Your task to perform on an android device: Search for a new desk on IKEA Image 0: 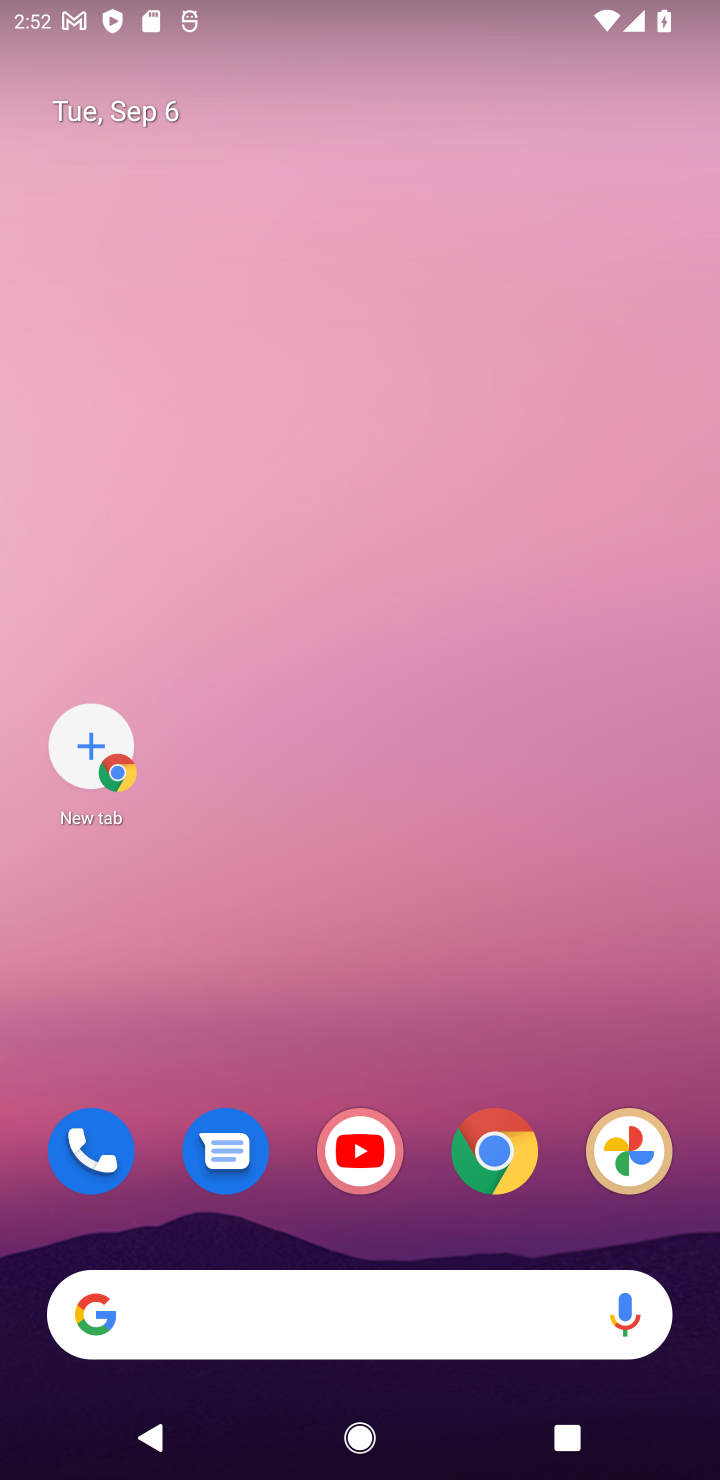
Step 0: click (498, 1173)
Your task to perform on an android device: Search for a new desk on IKEA Image 1: 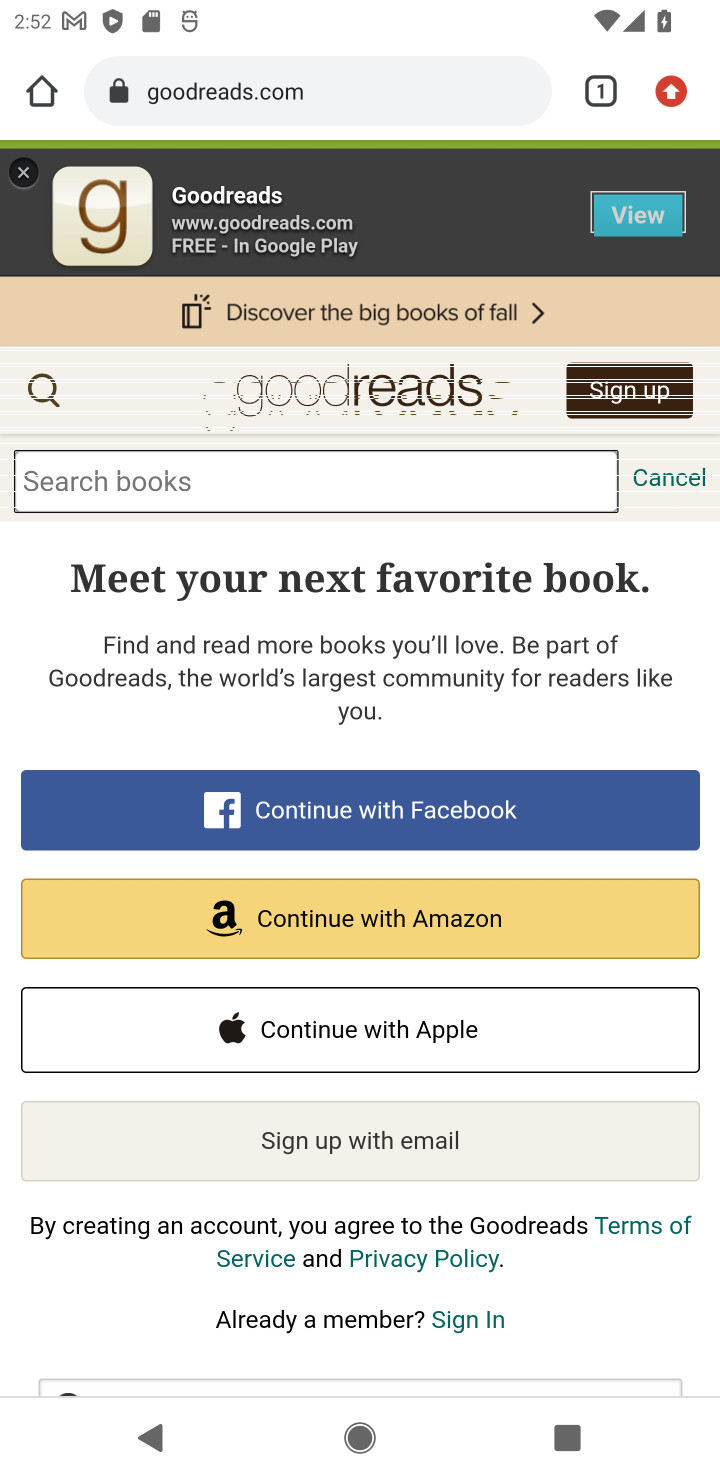
Step 1: click (244, 88)
Your task to perform on an android device: Search for a new desk on IKEA Image 2: 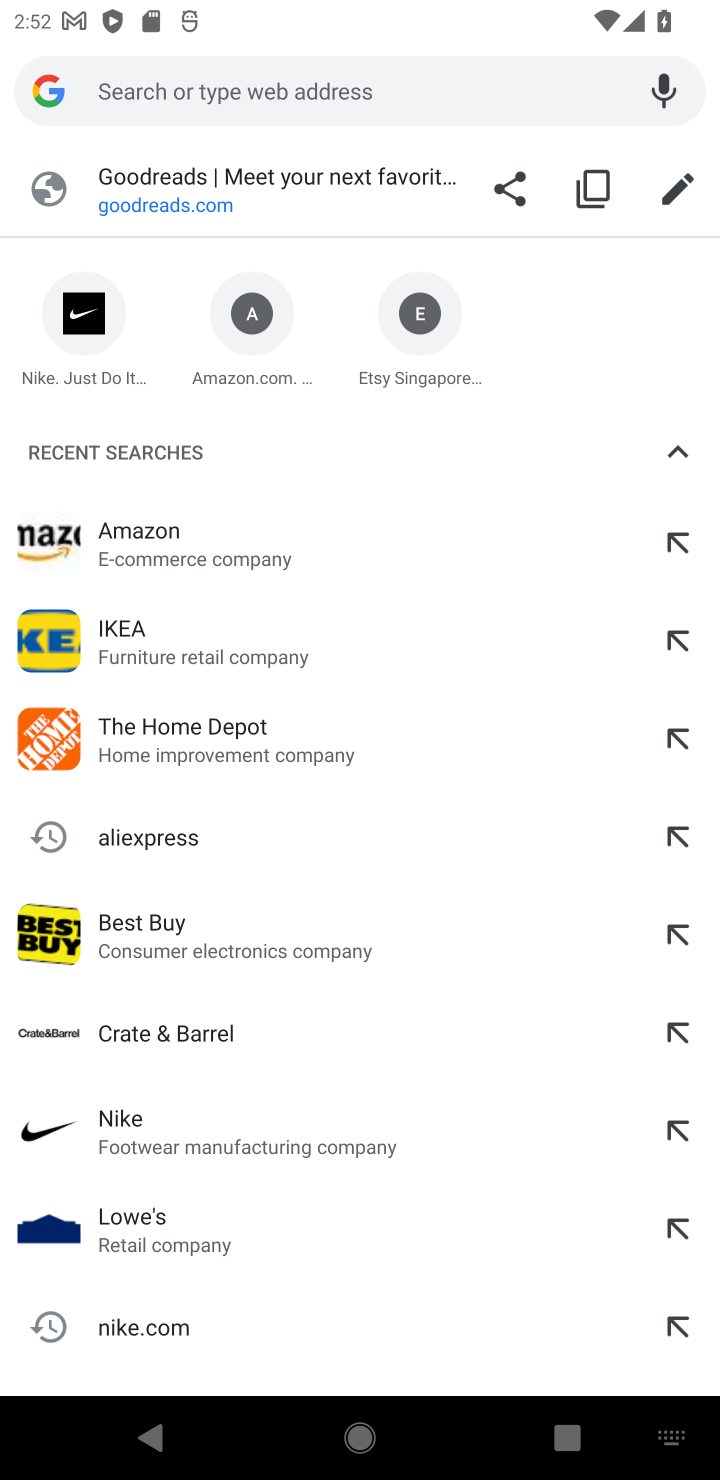
Step 2: type "ikea"
Your task to perform on an android device: Search for a new desk on IKEA Image 3: 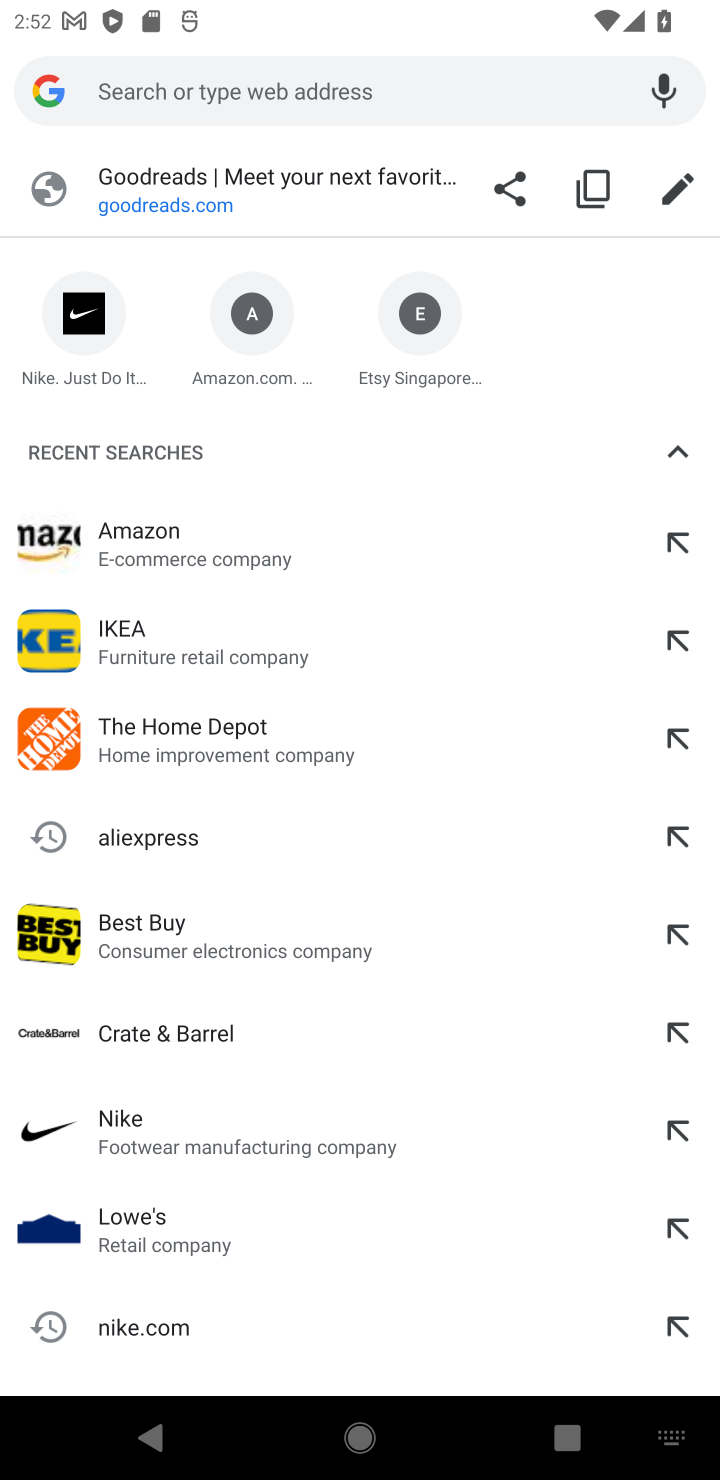
Step 3: click (124, 655)
Your task to perform on an android device: Search for a new desk on IKEA Image 4: 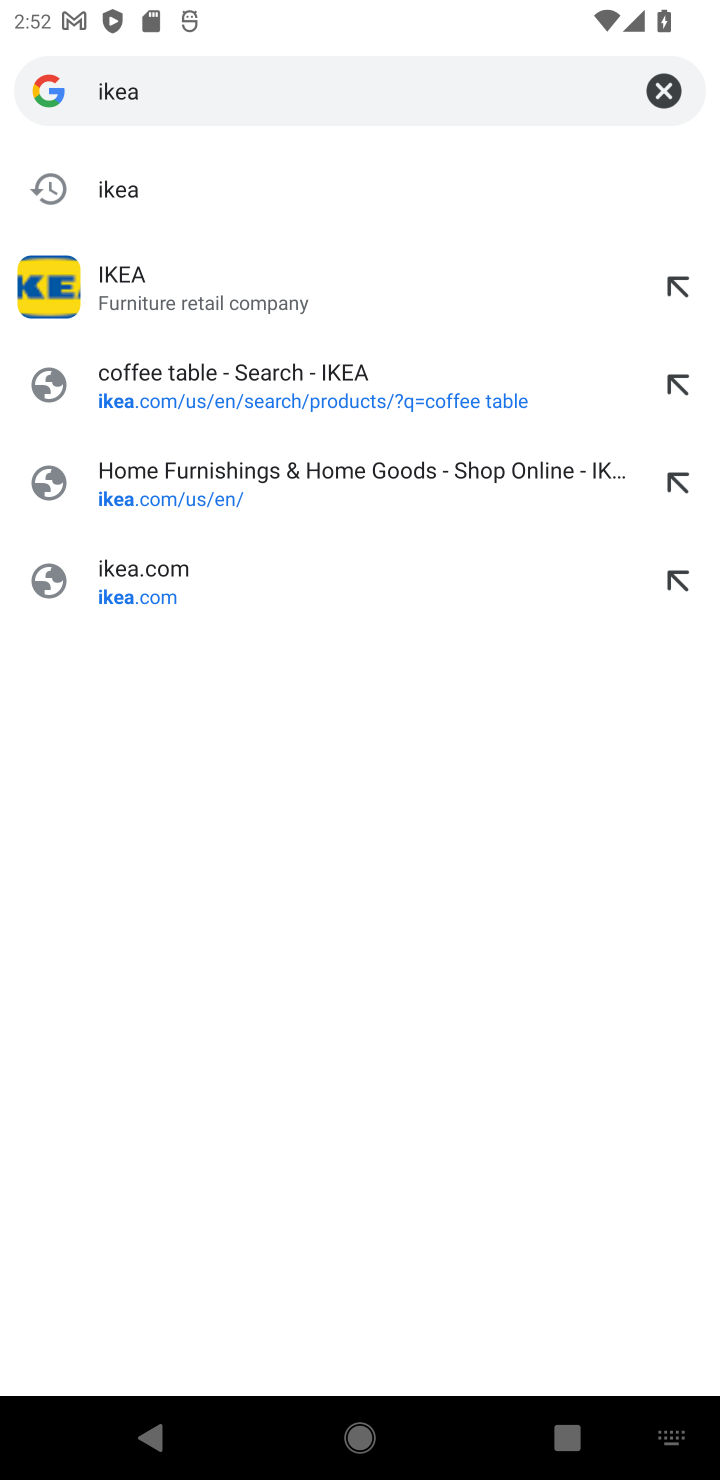
Step 4: click (134, 300)
Your task to perform on an android device: Search for a new desk on IKEA Image 5: 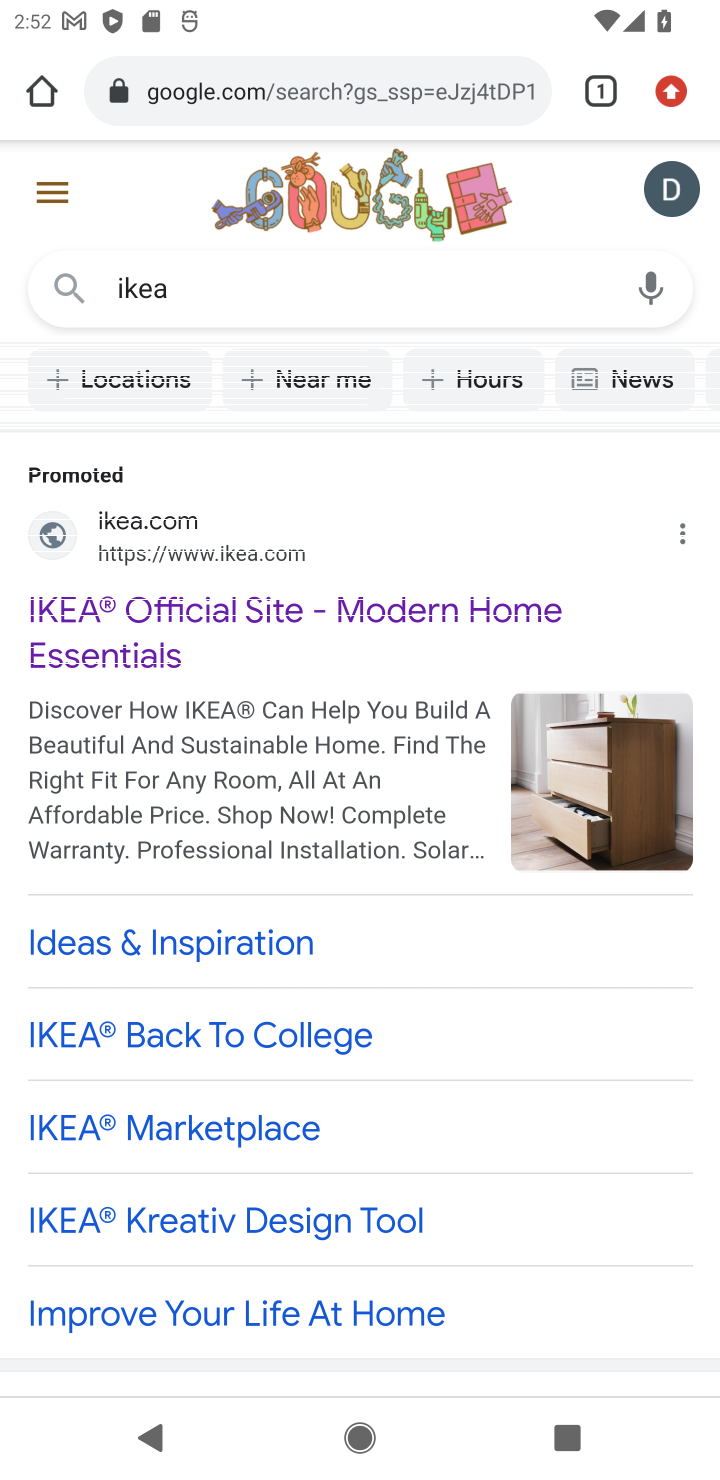
Step 5: drag from (535, 1111) to (567, 411)
Your task to perform on an android device: Search for a new desk on IKEA Image 6: 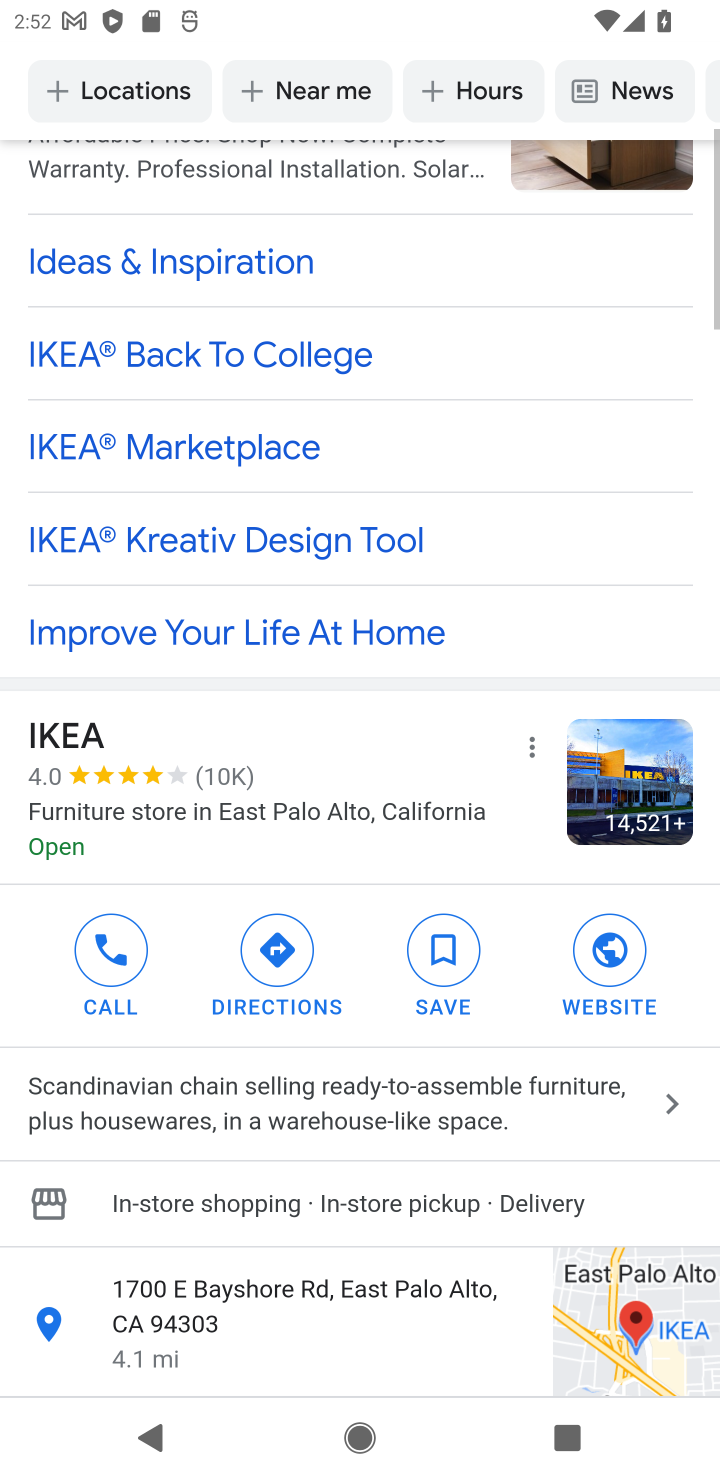
Step 6: drag from (417, 1065) to (520, 457)
Your task to perform on an android device: Search for a new desk on IKEA Image 7: 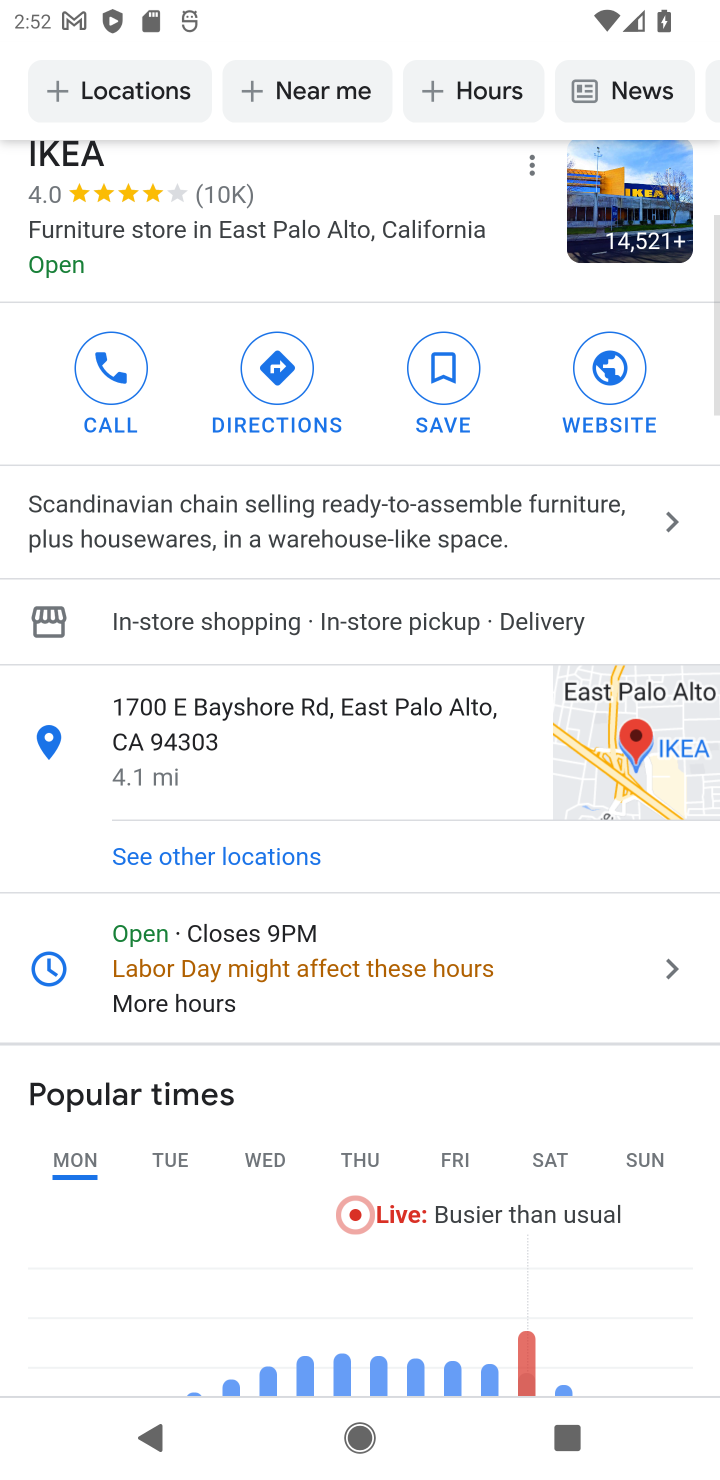
Step 7: drag from (343, 1230) to (555, 615)
Your task to perform on an android device: Search for a new desk on IKEA Image 8: 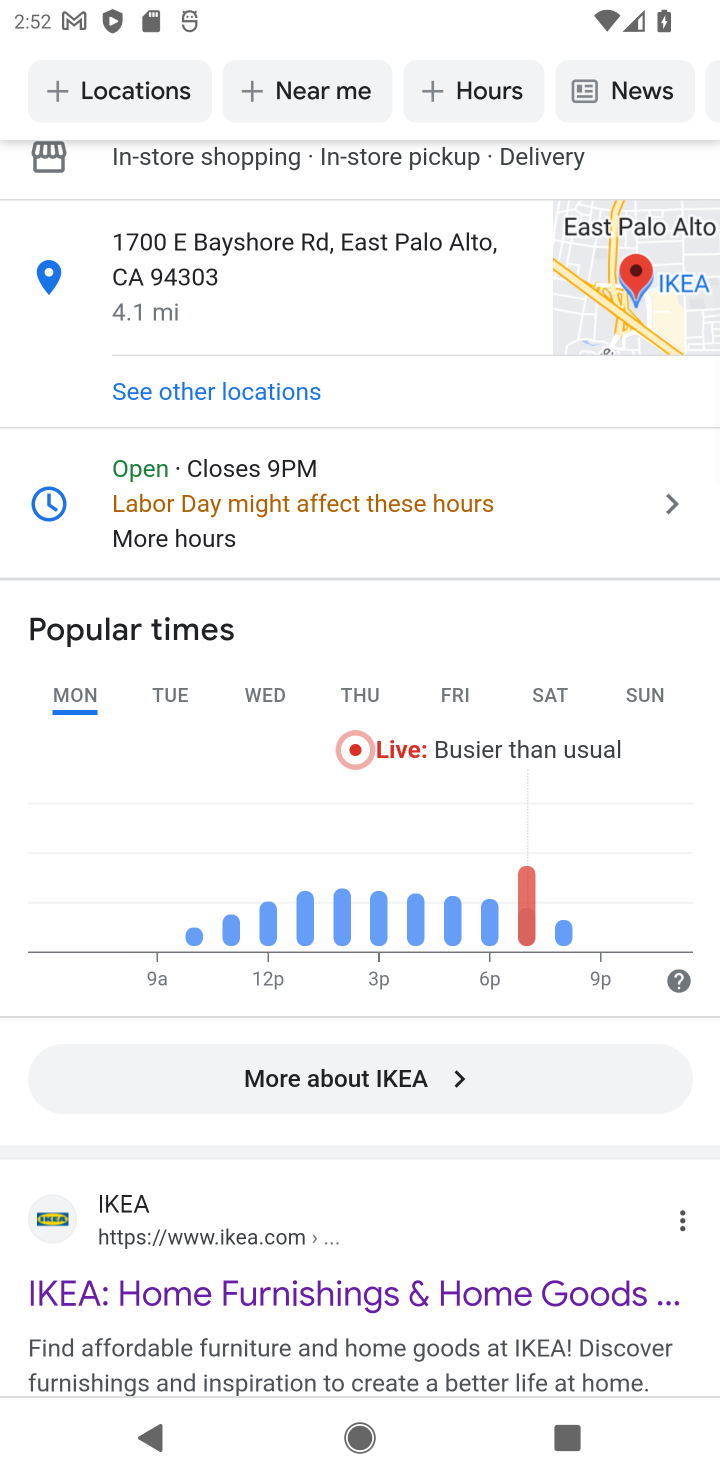
Step 8: drag from (453, 1164) to (514, 614)
Your task to perform on an android device: Search for a new desk on IKEA Image 9: 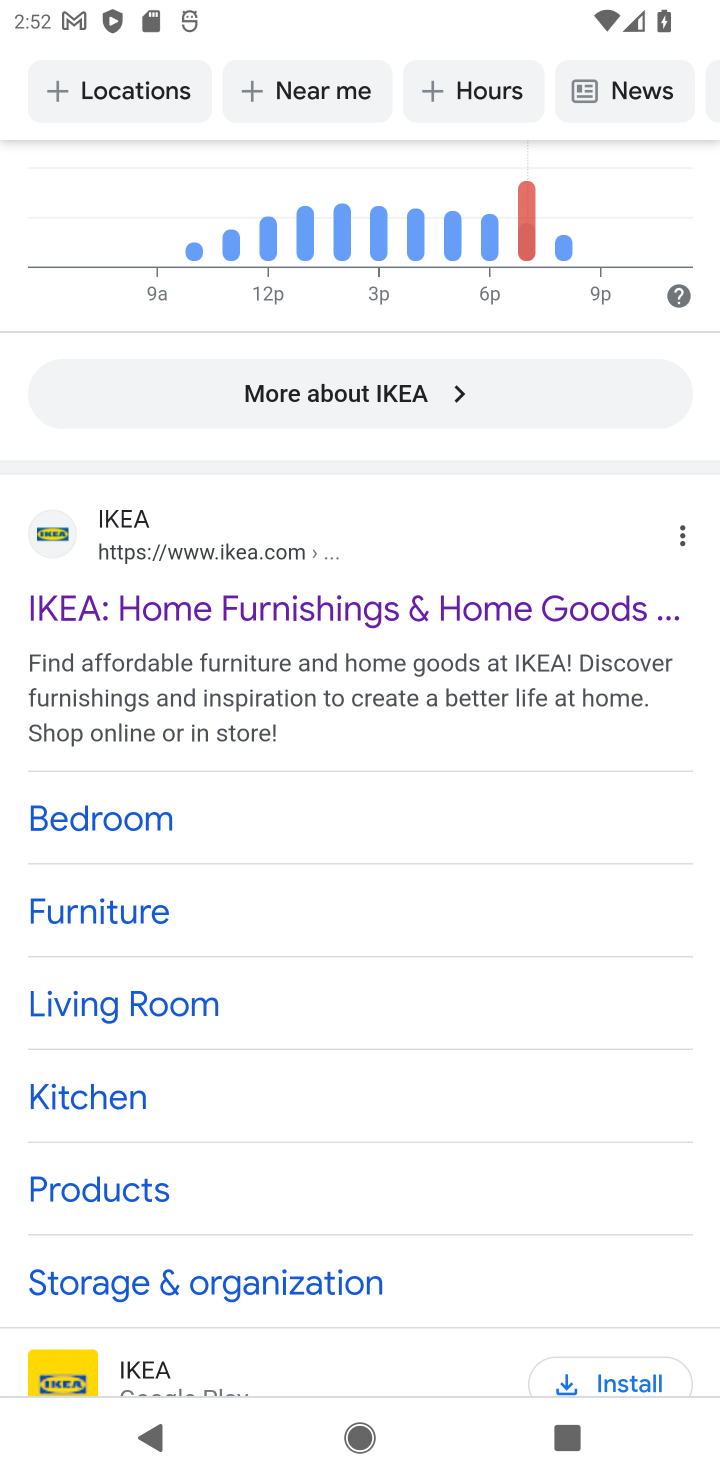
Step 9: click (140, 618)
Your task to perform on an android device: Search for a new desk on IKEA Image 10: 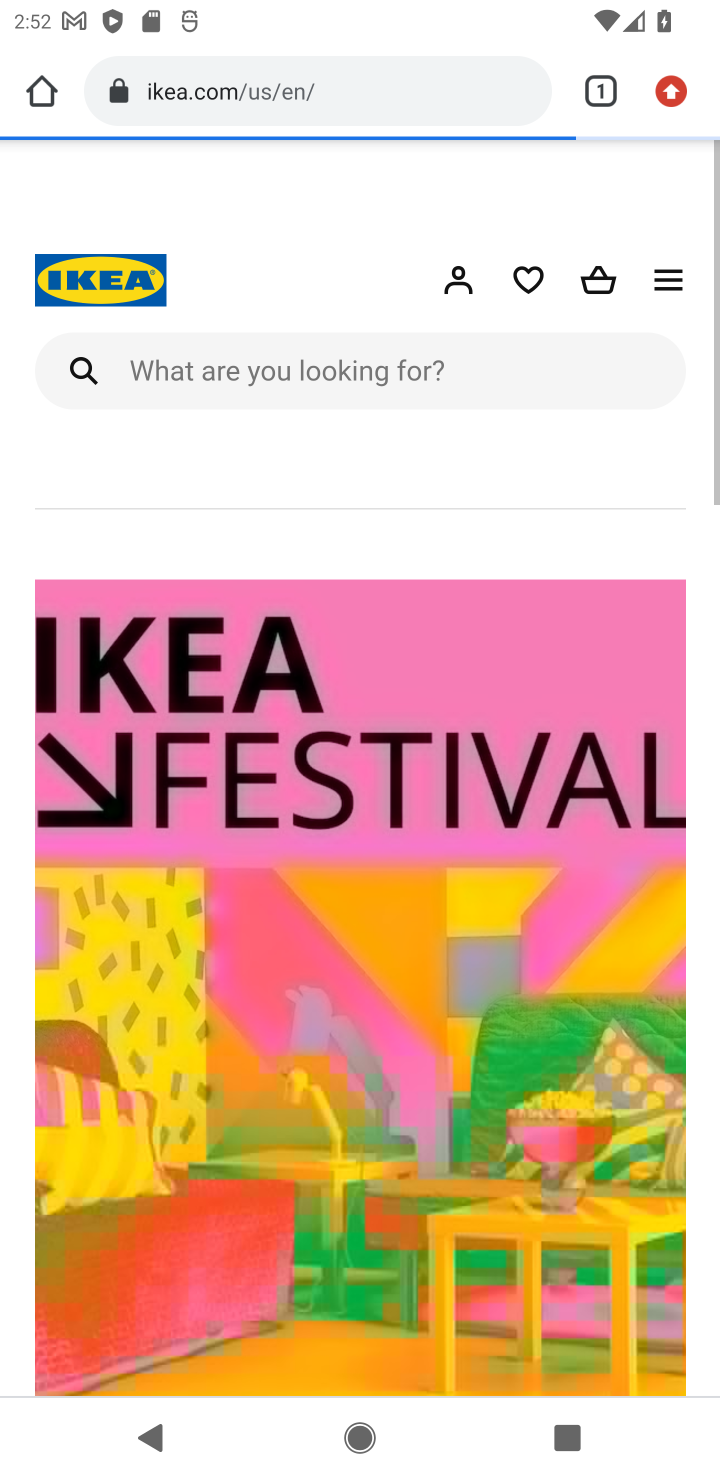
Step 10: click (287, 377)
Your task to perform on an android device: Search for a new desk on IKEA Image 11: 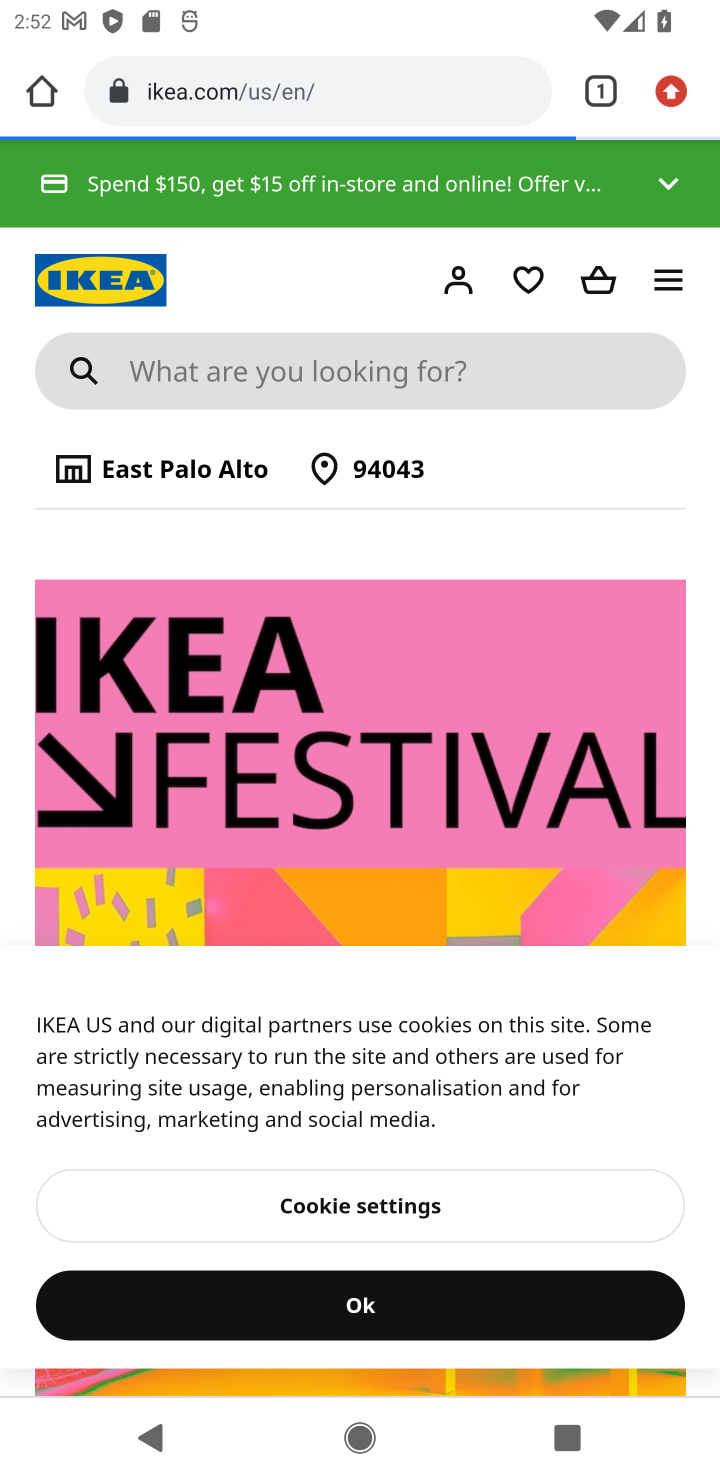
Step 11: type "desk"
Your task to perform on an android device: Search for a new desk on IKEA Image 12: 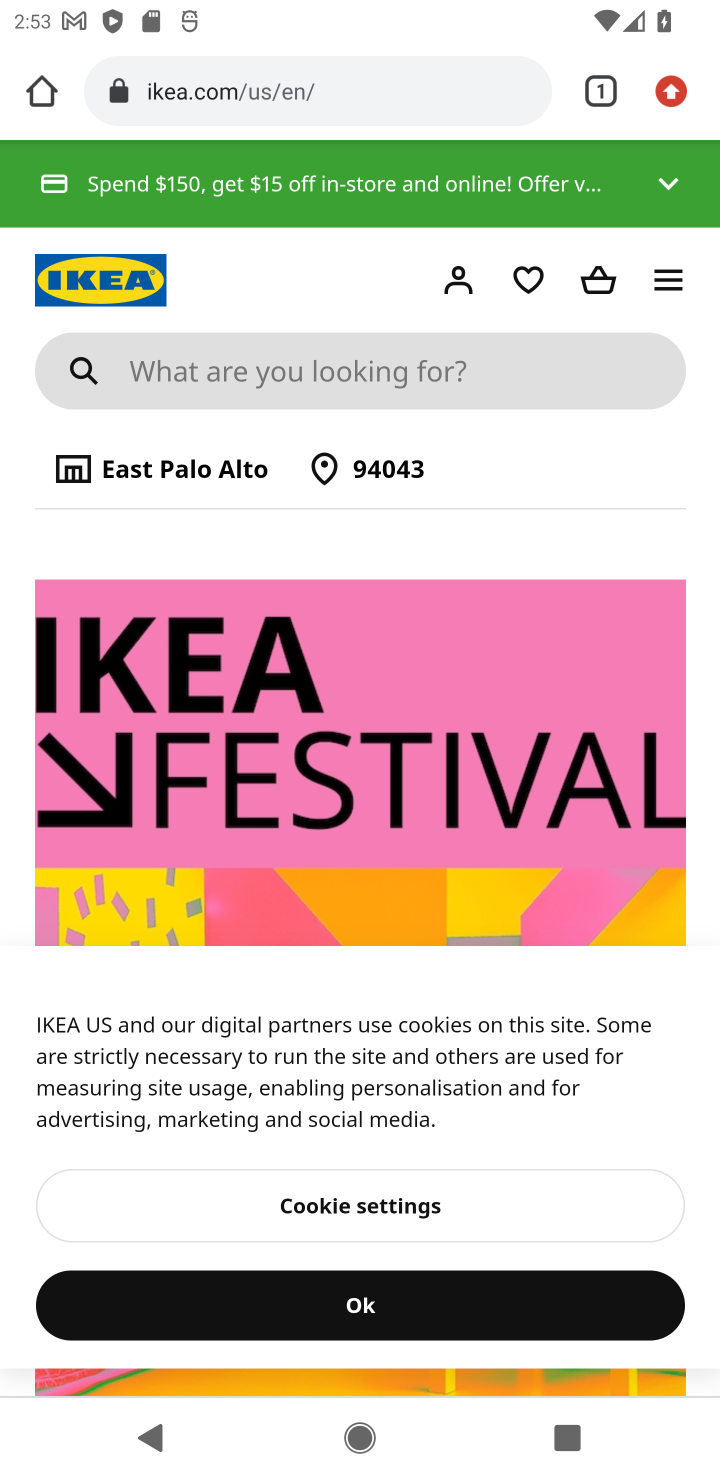
Step 12: click (330, 350)
Your task to perform on an android device: Search for a new desk on IKEA Image 13: 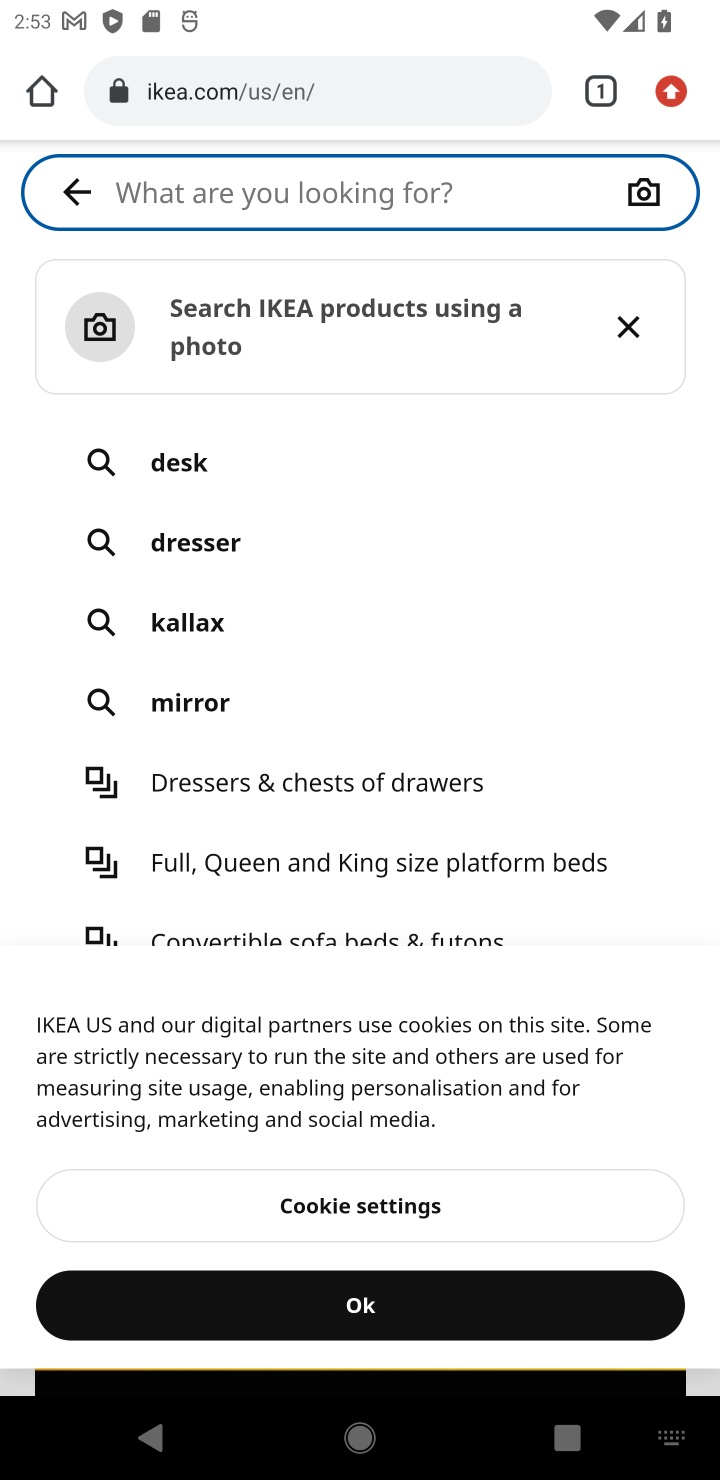
Step 13: click (205, 452)
Your task to perform on an android device: Search for a new desk on IKEA Image 14: 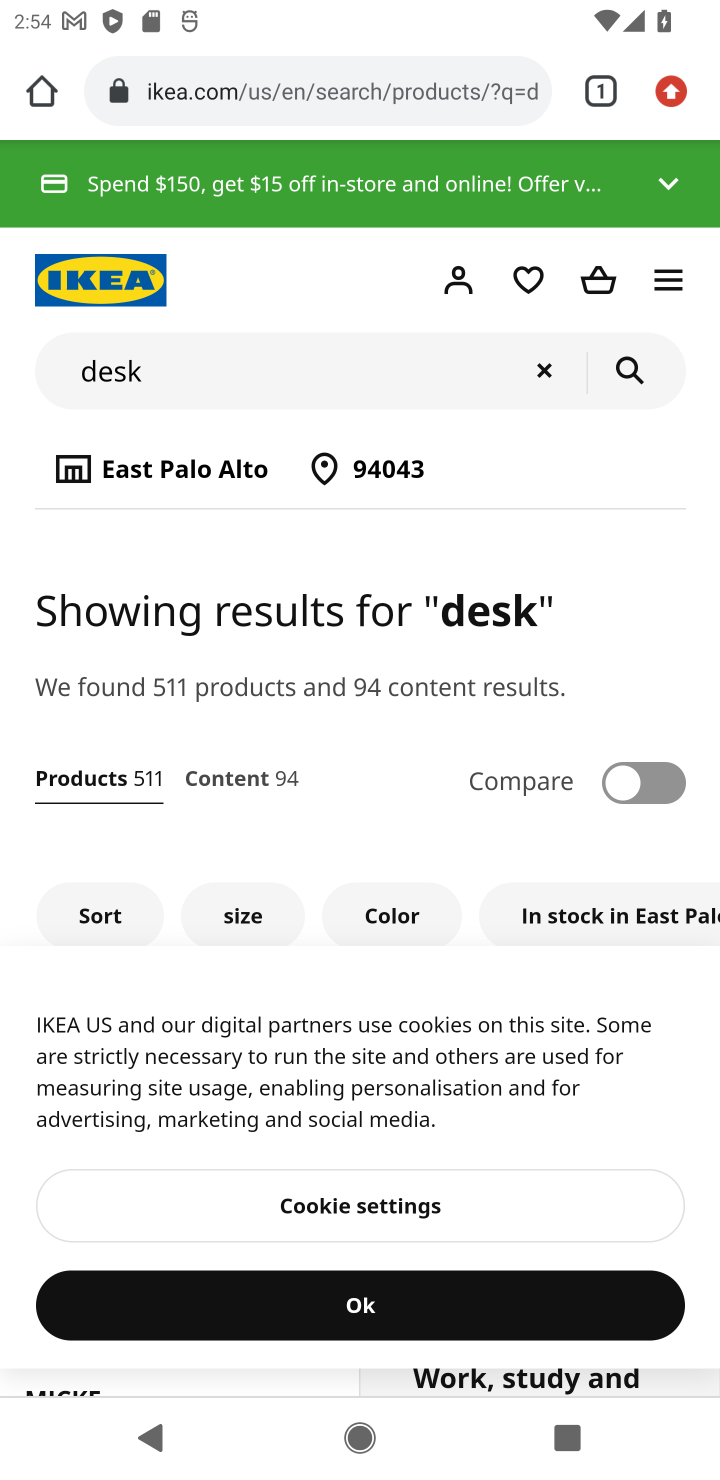
Step 14: drag from (143, 991) to (289, 373)
Your task to perform on an android device: Search for a new desk on IKEA Image 15: 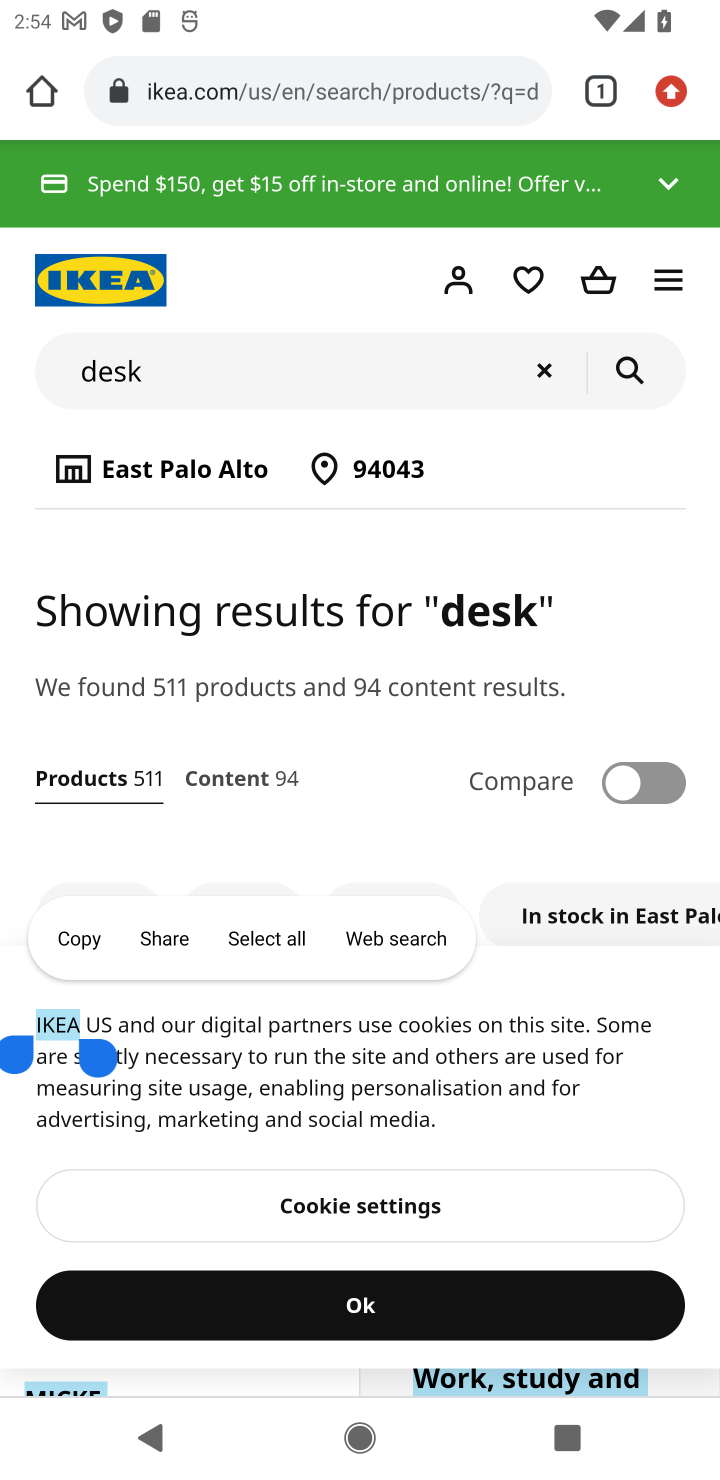
Step 15: drag from (686, 1114) to (686, 393)
Your task to perform on an android device: Search for a new desk on IKEA Image 16: 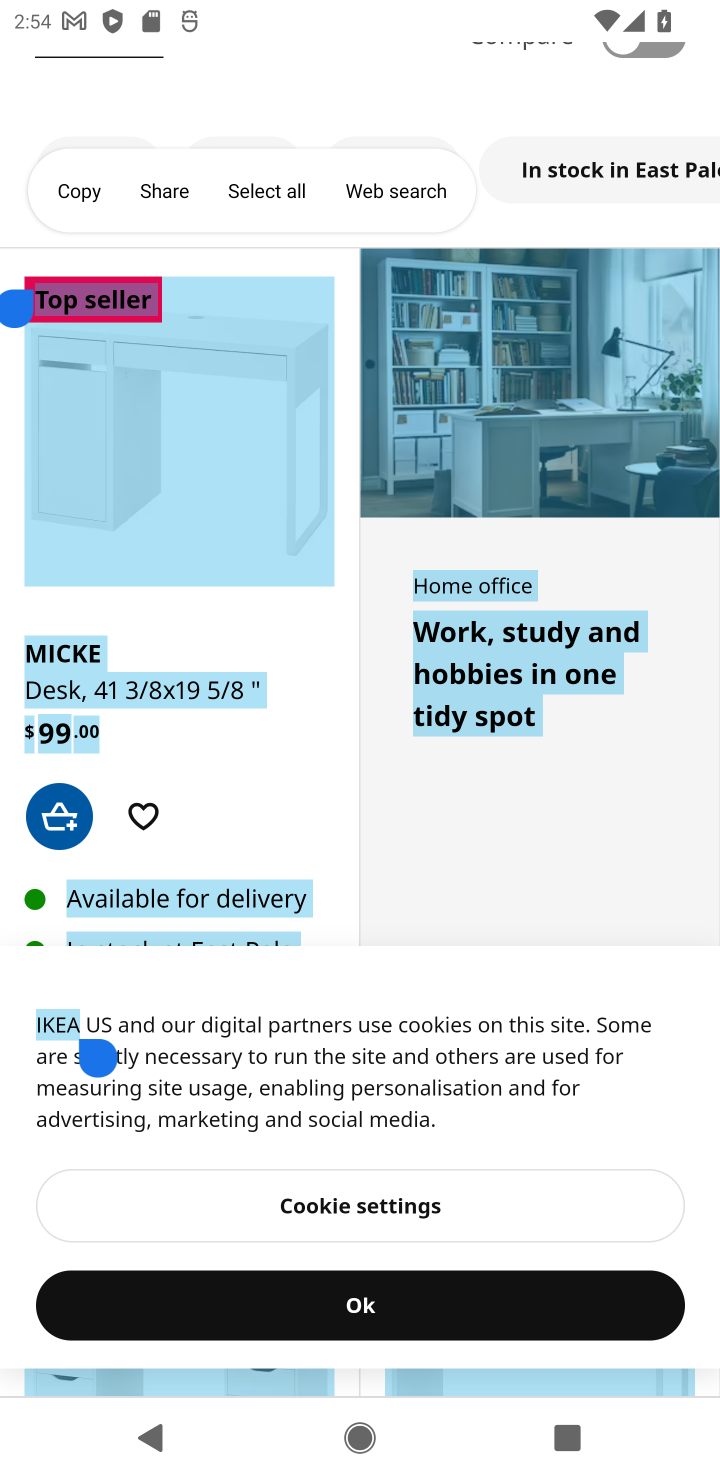
Step 16: click (576, 790)
Your task to perform on an android device: Search for a new desk on IKEA Image 17: 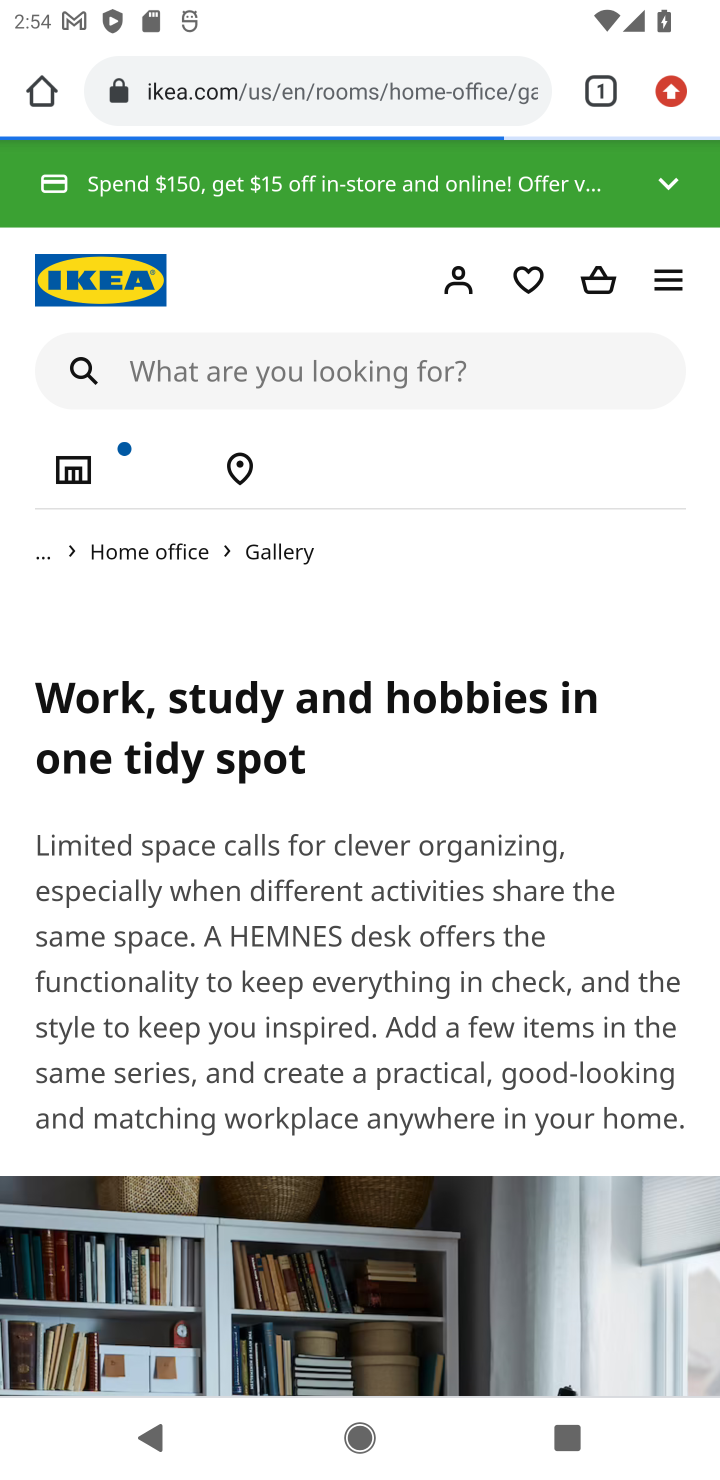
Step 17: drag from (312, 851) to (386, 342)
Your task to perform on an android device: Search for a new desk on IKEA Image 18: 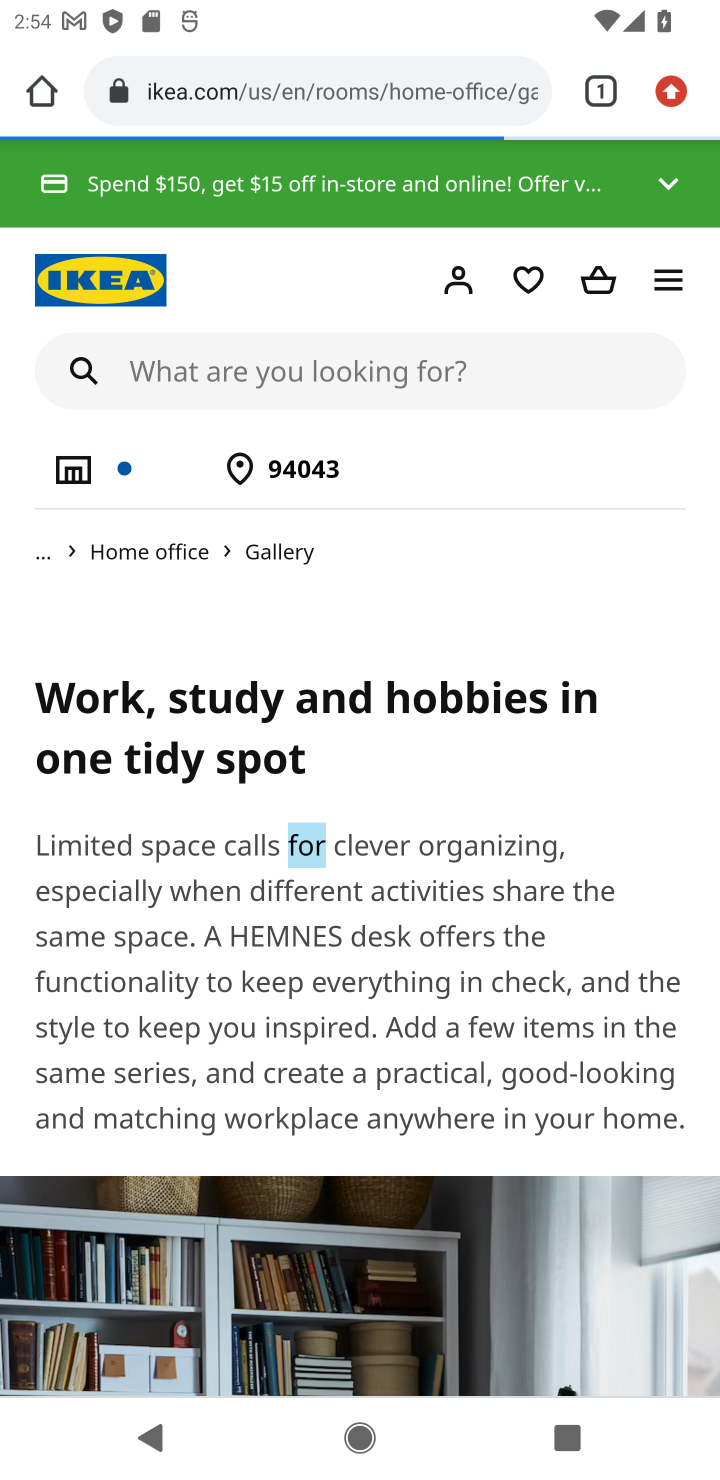
Step 18: drag from (235, 1025) to (329, 585)
Your task to perform on an android device: Search for a new desk on IKEA Image 19: 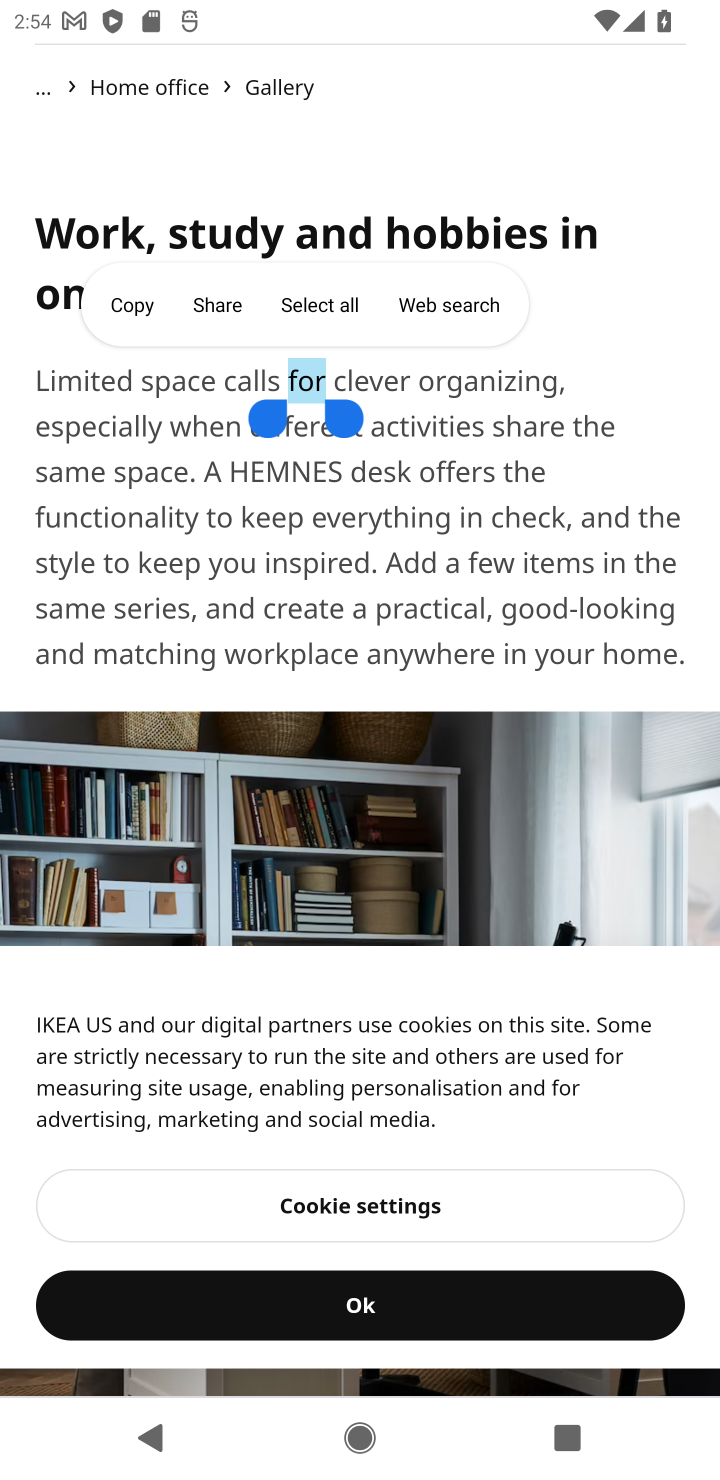
Step 19: click (111, 726)
Your task to perform on an android device: Search for a new desk on IKEA Image 20: 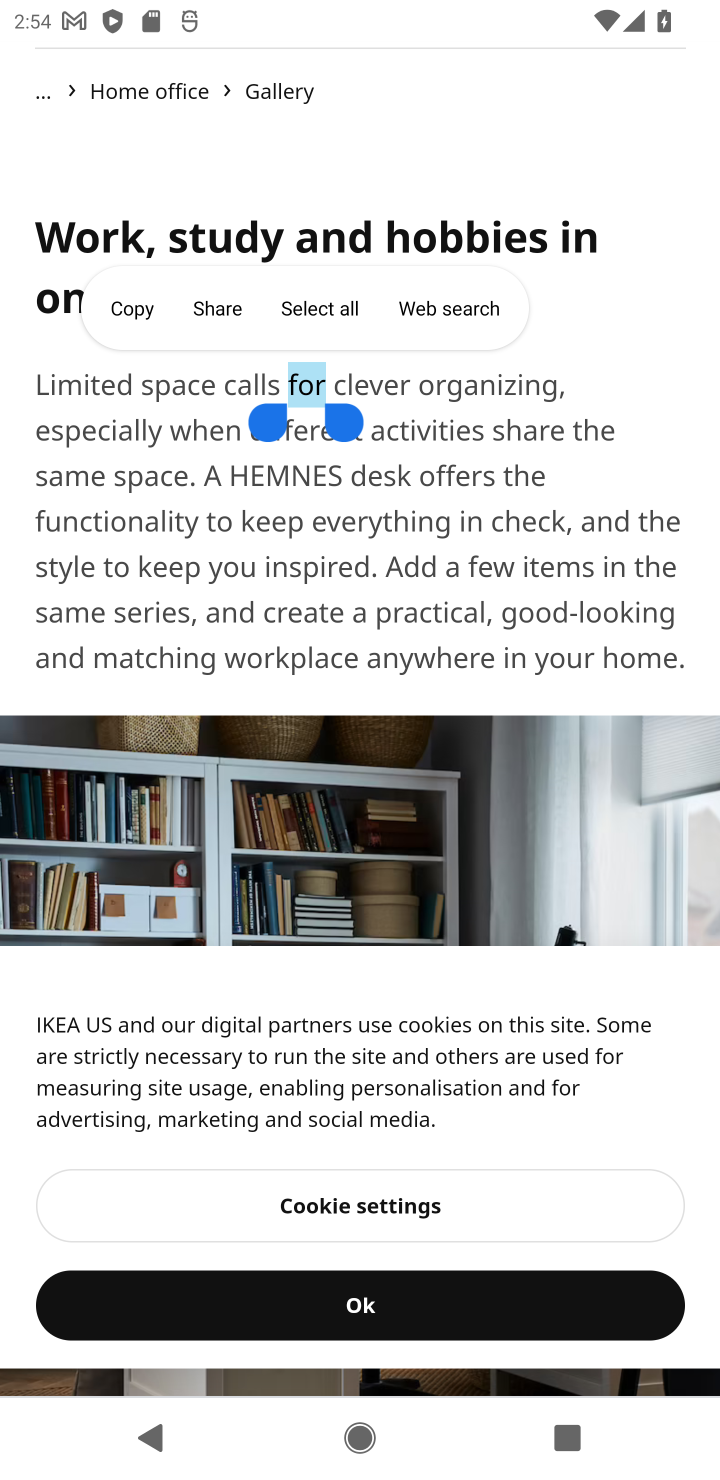
Step 20: drag from (555, 280) to (633, 844)
Your task to perform on an android device: Search for a new desk on IKEA Image 21: 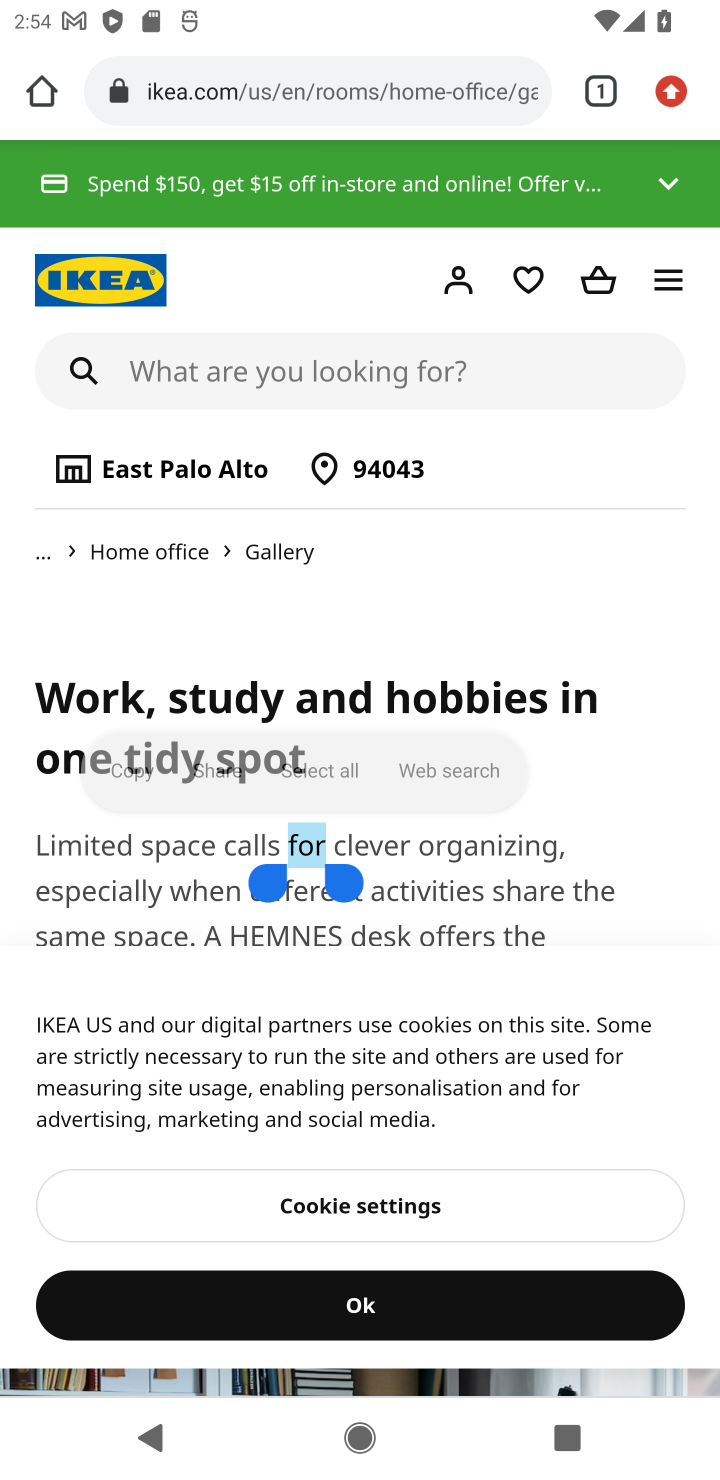
Step 21: click (204, 375)
Your task to perform on an android device: Search for a new desk on IKEA Image 22: 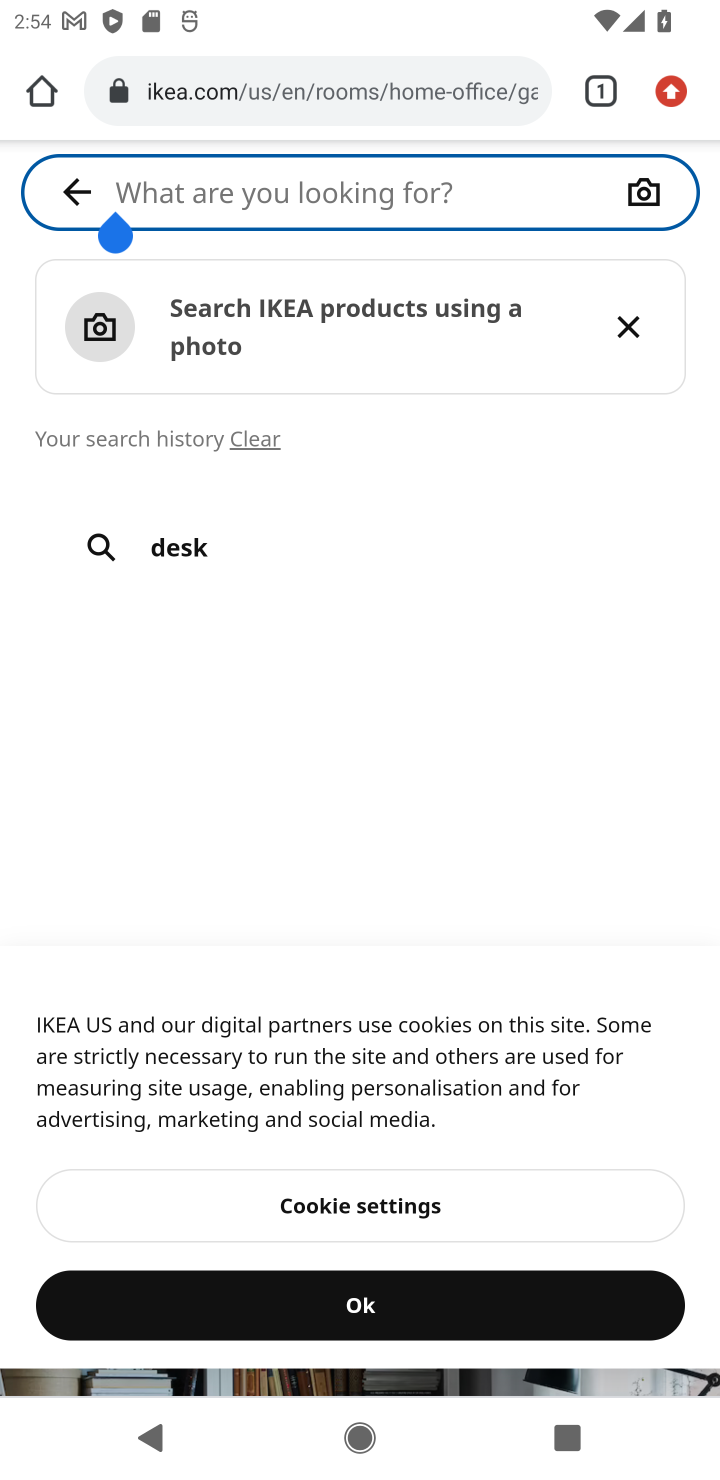
Step 22: type "new desk"
Your task to perform on an android device: Search for a new desk on IKEA Image 23: 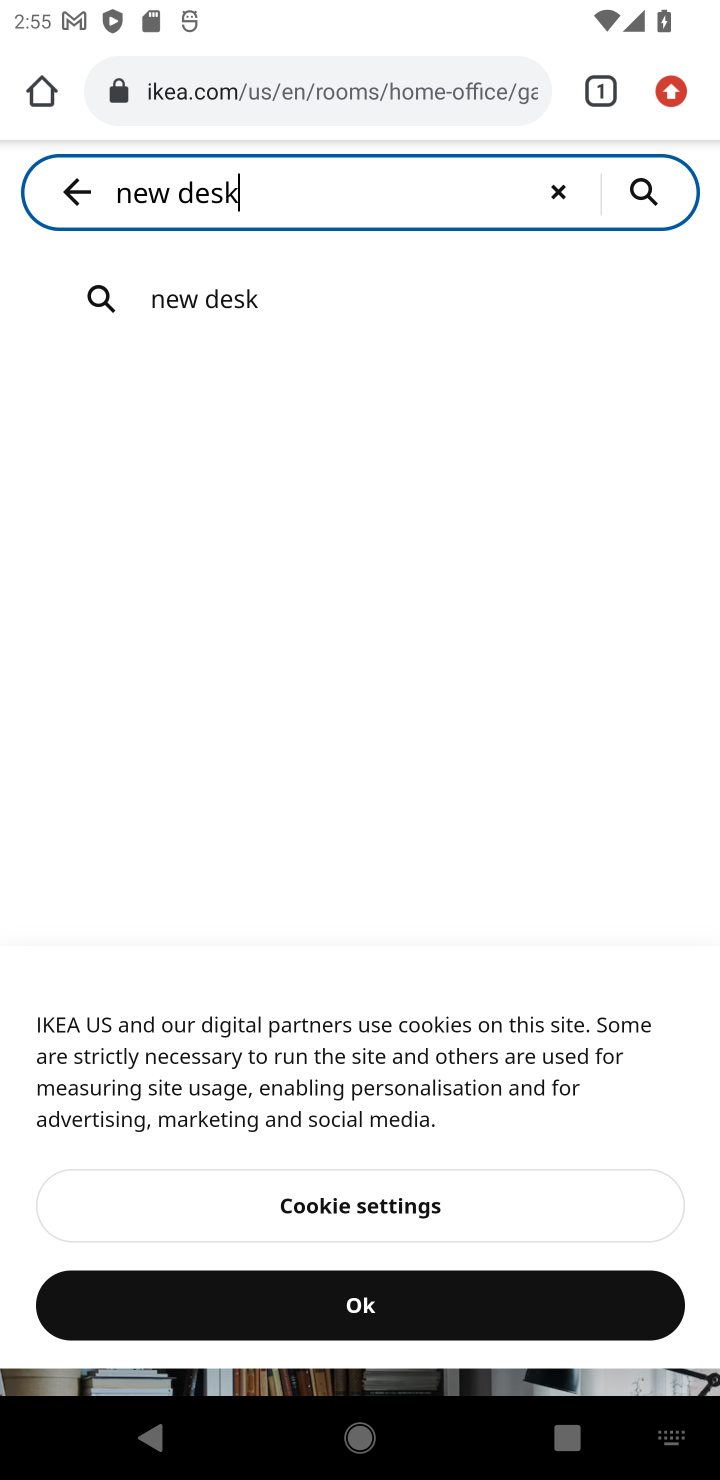
Step 23: click (212, 298)
Your task to perform on an android device: Search for a new desk on IKEA Image 24: 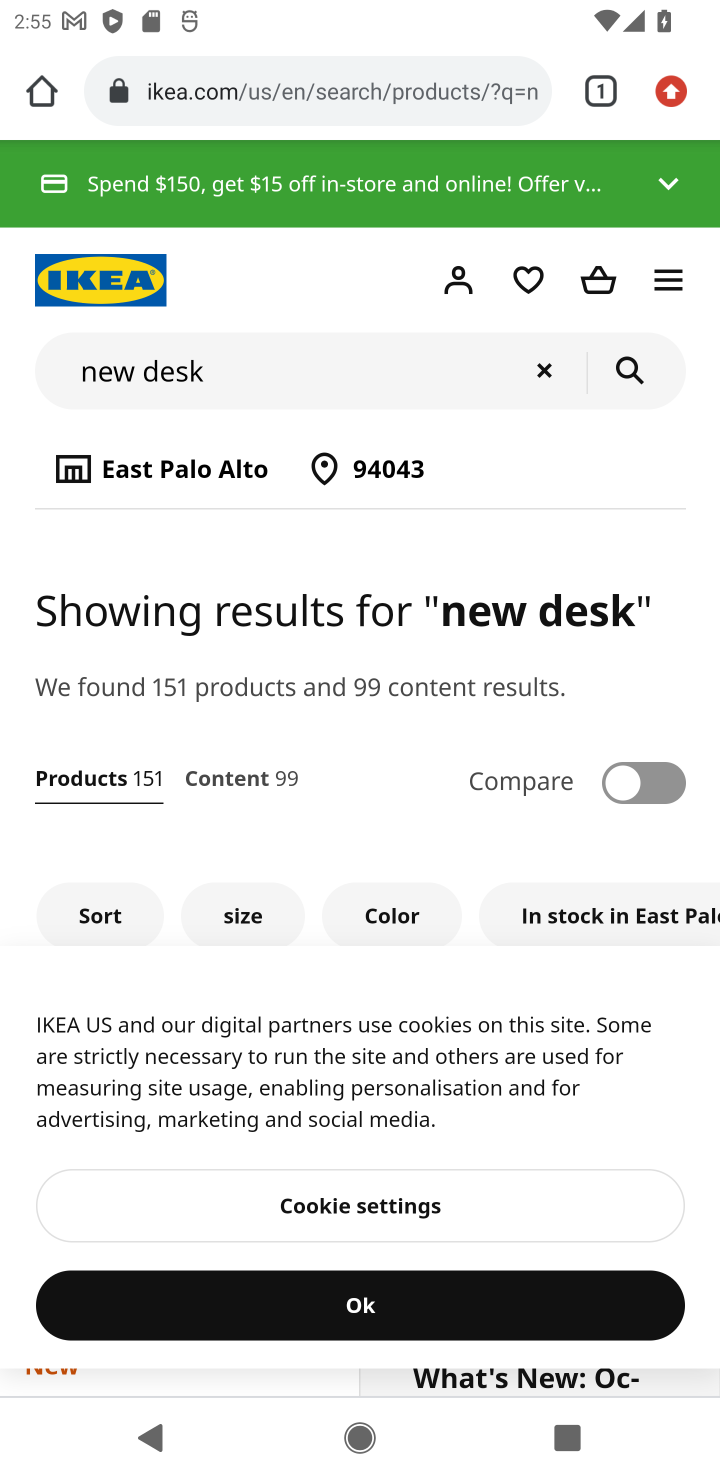
Step 24: task complete